Your task to perform on an android device: check out phone information Image 0: 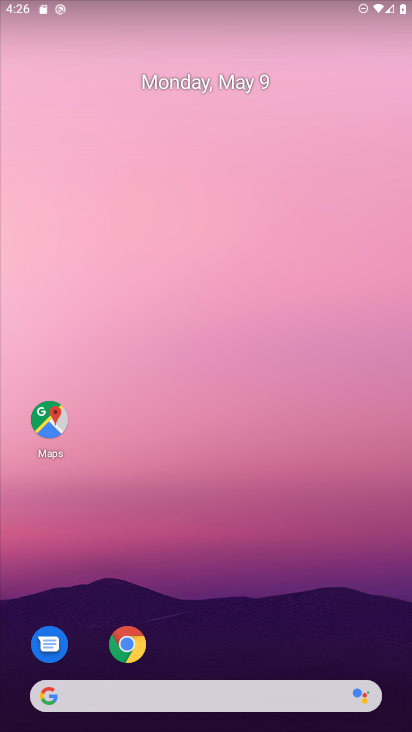
Step 0: drag from (259, 626) to (266, 210)
Your task to perform on an android device: check out phone information Image 1: 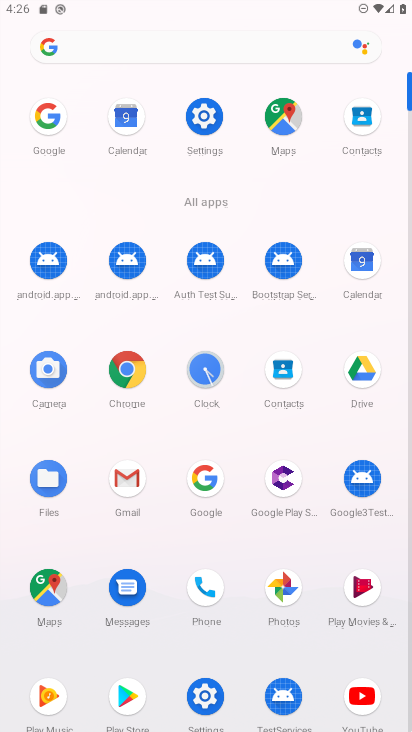
Step 1: click (208, 142)
Your task to perform on an android device: check out phone information Image 2: 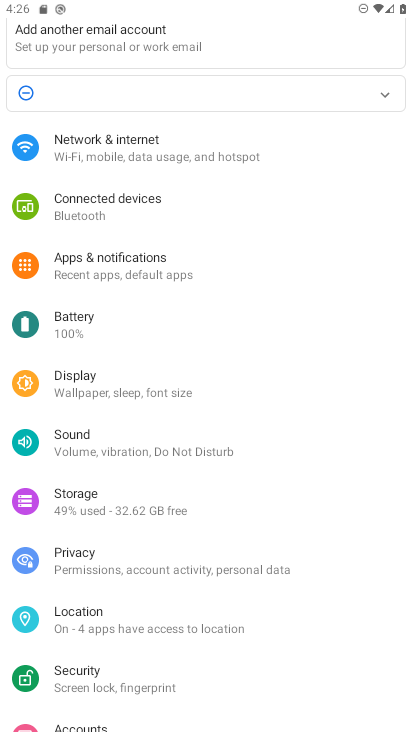
Step 2: drag from (133, 582) to (163, 284)
Your task to perform on an android device: check out phone information Image 3: 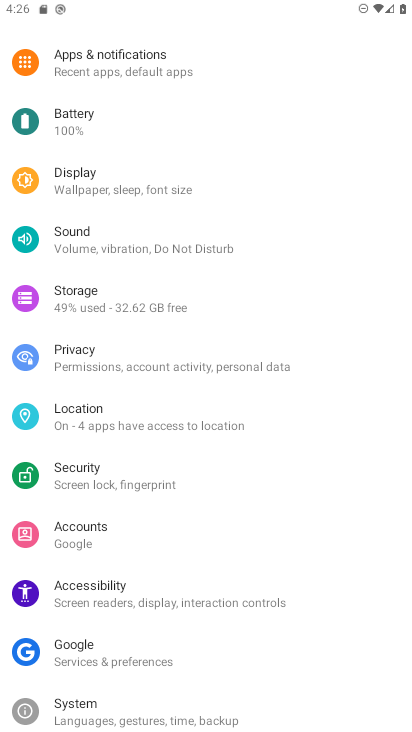
Step 3: drag from (122, 678) to (147, 411)
Your task to perform on an android device: check out phone information Image 4: 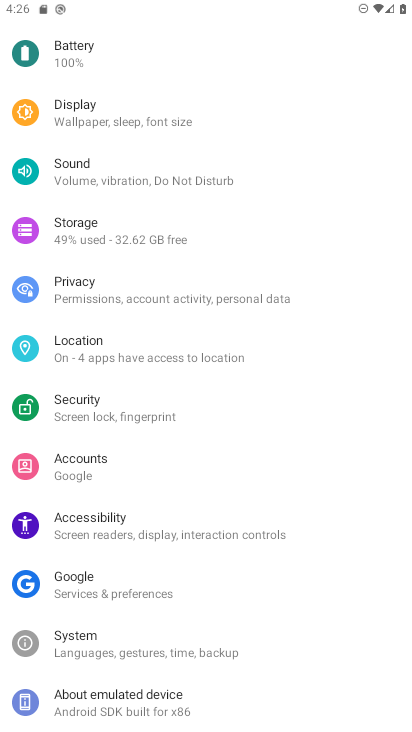
Step 4: click (124, 696)
Your task to perform on an android device: check out phone information Image 5: 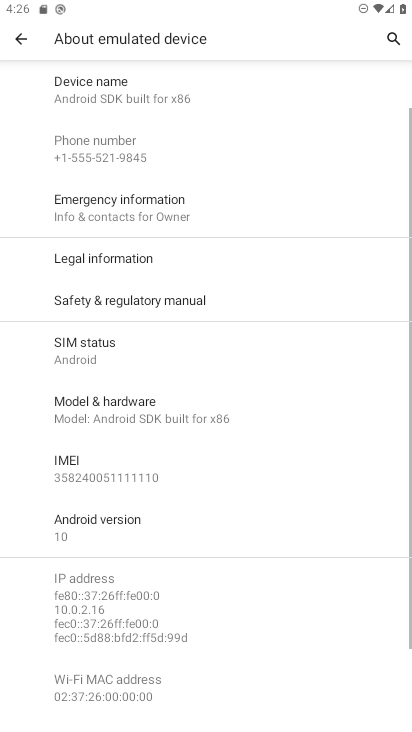
Step 5: task complete